Your task to perform on an android device: Open Android settings Image 0: 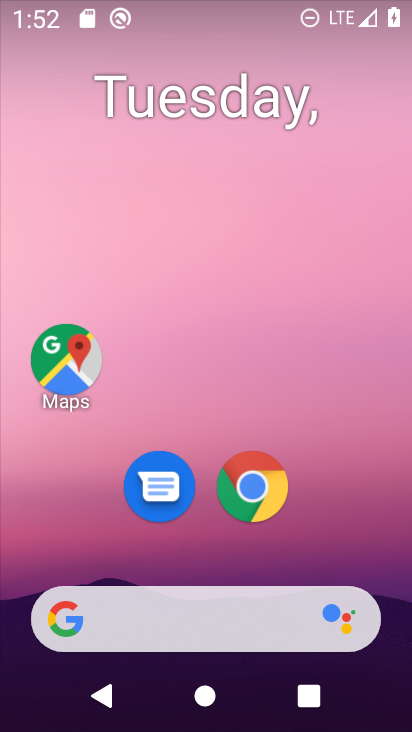
Step 0: drag from (238, 564) to (247, 193)
Your task to perform on an android device: Open Android settings Image 1: 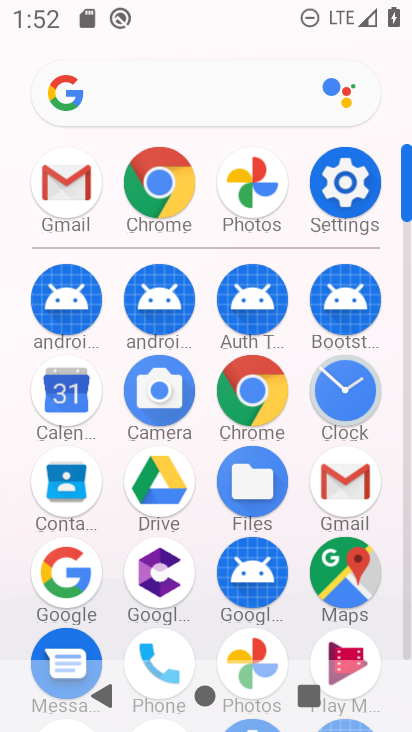
Step 1: drag from (194, 257) to (211, 2)
Your task to perform on an android device: Open Android settings Image 2: 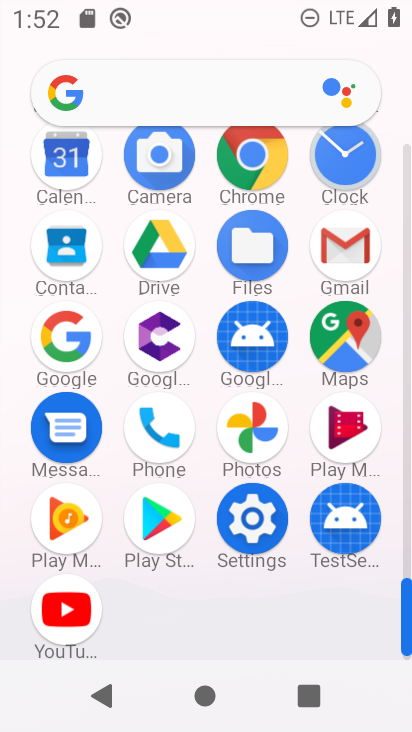
Step 2: click (259, 523)
Your task to perform on an android device: Open Android settings Image 3: 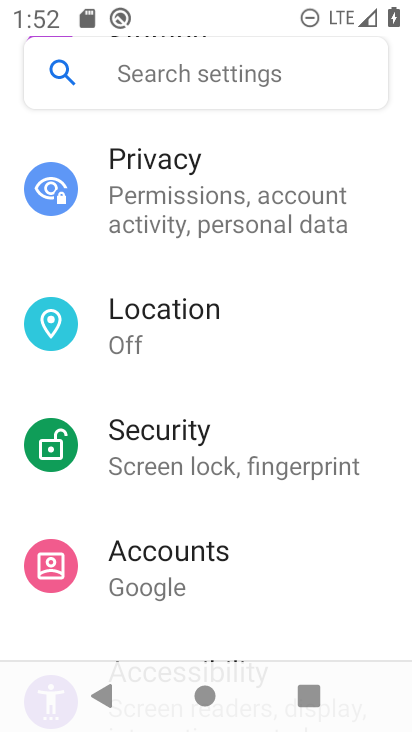
Step 3: task complete